Your task to perform on an android device: set default search engine in the chrome app Image 0: 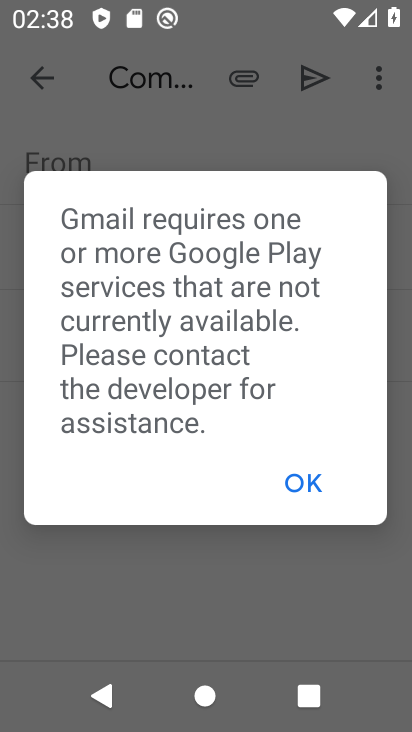
Step 0: press home button
Your task to perform on an android device: set default search engine in the chrome app Image 1: 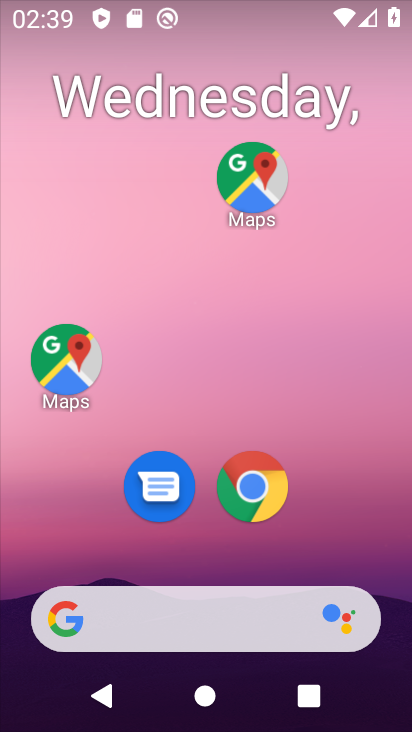
Step 1: click (253, 483)
Your task to perform on an android device: set default search engine in the chrome app Image 2: 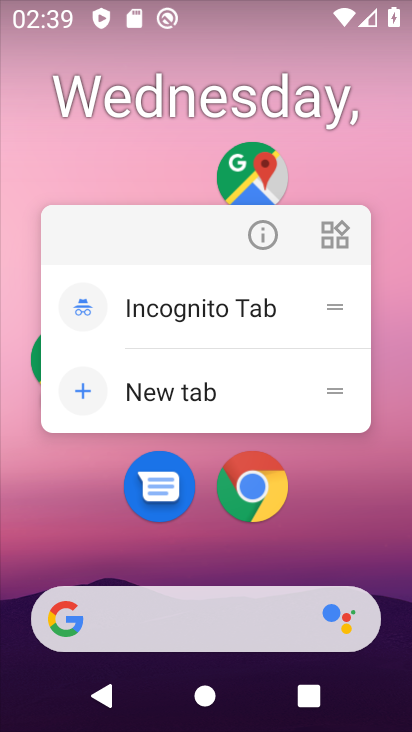
Step 2: click (260, 509)
Your task to perform on an android device: set default search engine in the chrome app Image 3: 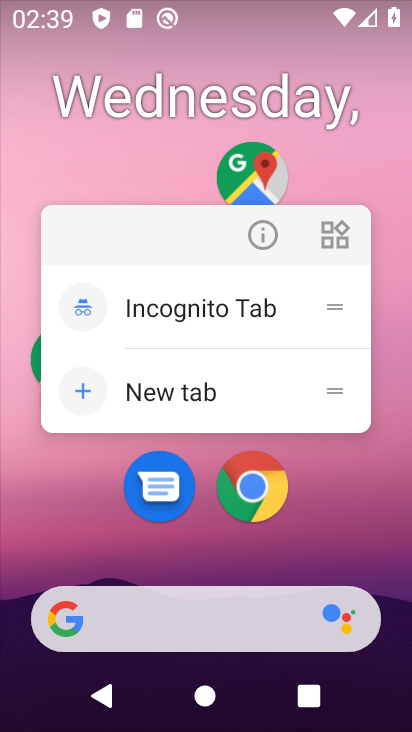
Step 3: click (253, 500)
Your task to perform on an android device: set default search engine in the chrome app Image 4: 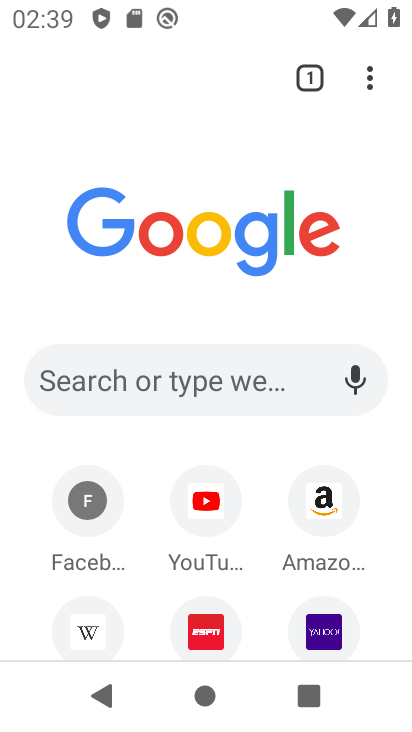
Step 4: drag from (361, 70) to (98, 566)
Your task to perform on an android device: set default search engine in the chrome app Image 5: 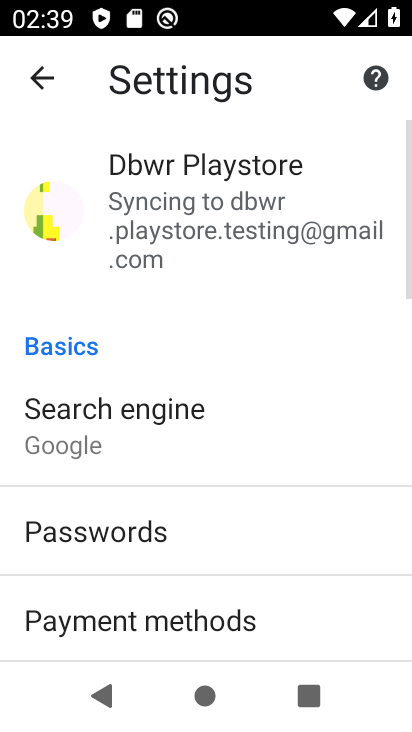
Step 5: click (87, 419)
Your task to perform on an android device: set default search engine in the chrome app Image 6: 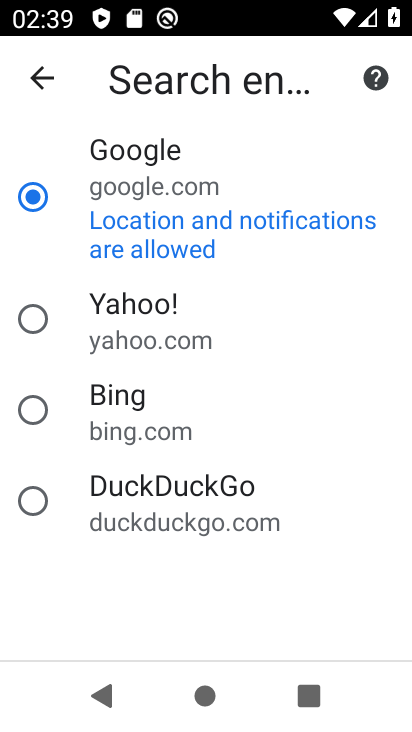
Step 6: click (40, 203)
Your task to perform on an android device: set default search engine in the chrome app Image 7: 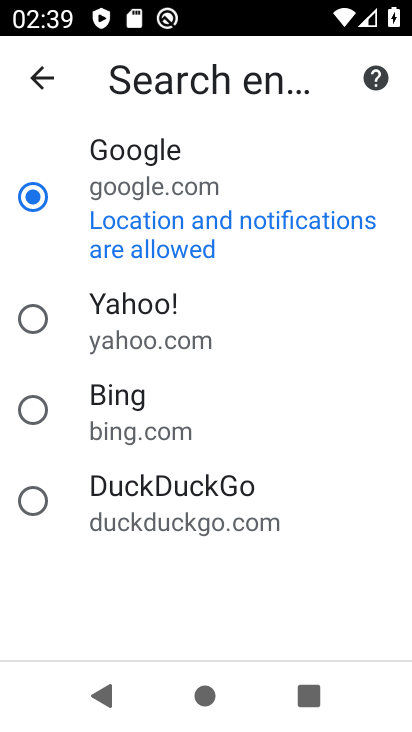
Step 7: task complete